Your task to perform on an android device: Is it going to rain today? Image 0: 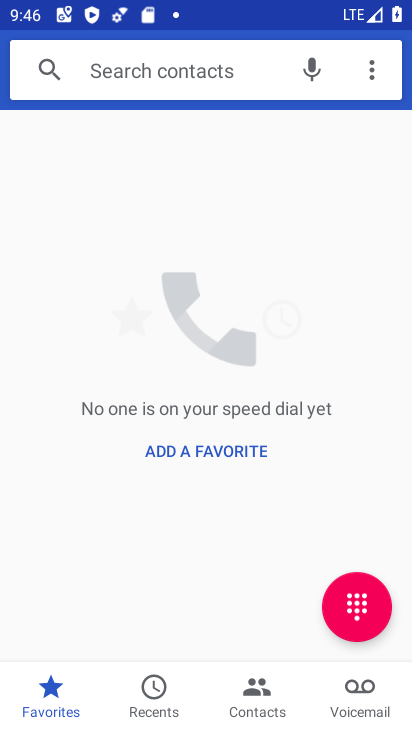
Step 0: press home button
Your task to perform on an android device: Is it going to rain today? Image 1: 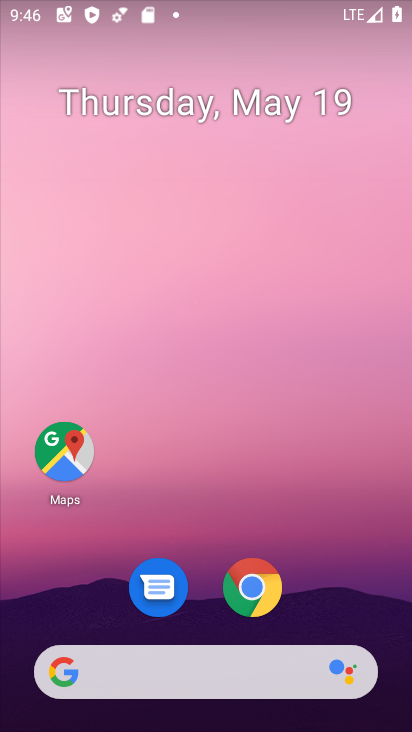
Step 1: click (149, 683)
Your task to perform on an android device: Is it going to rain today? Image 2: 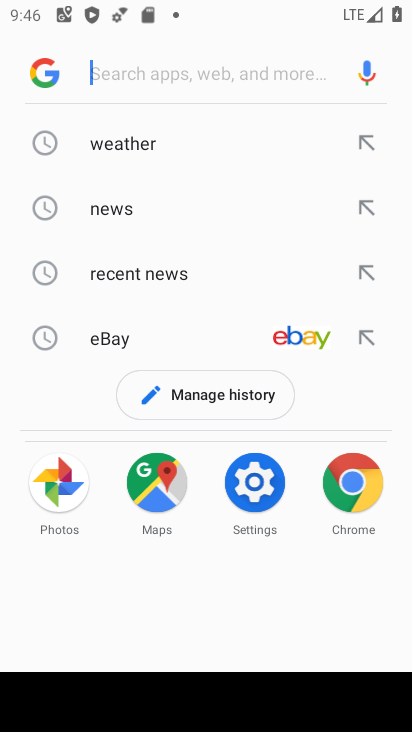
Step 2: click (199, 153)
Your task to perform on an android device: Is it going to rain today? Image 3: 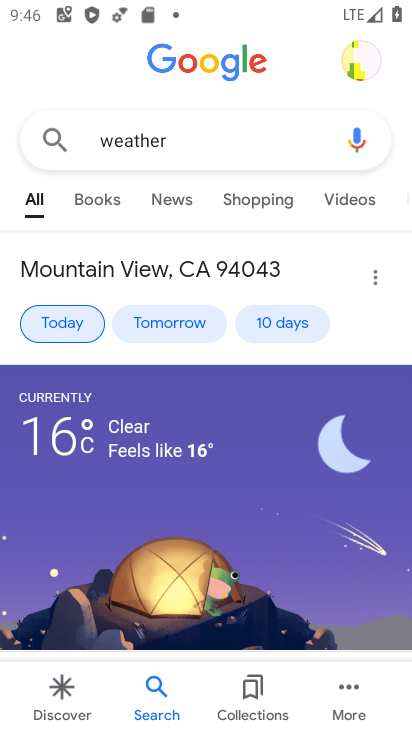
Step 3: task complete